Your task to perform on an android device: Go to privacy settings Image 0: 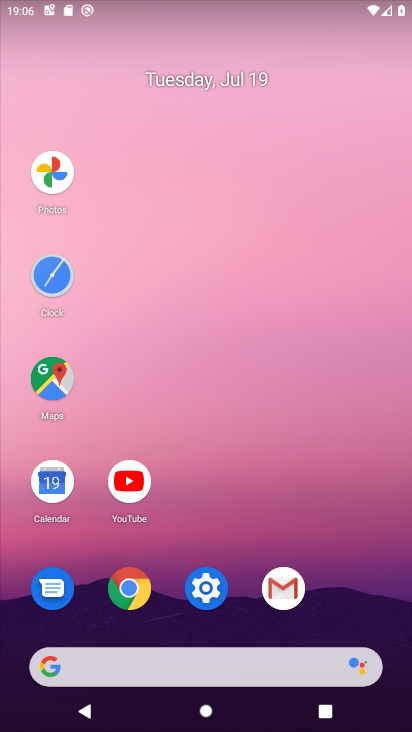
Step 0: click (204, 588)
Your task to perform on an android device: Go to privacy settings Image 1: 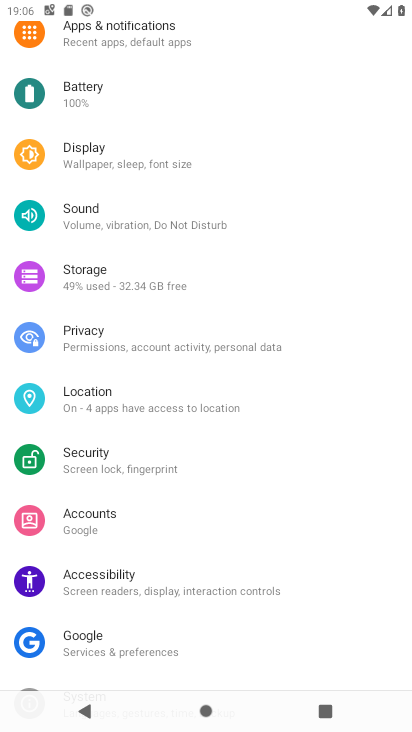
Step 1: click (88, 333)
Your task to perform on an android device: Go to privacy settings Image 2: 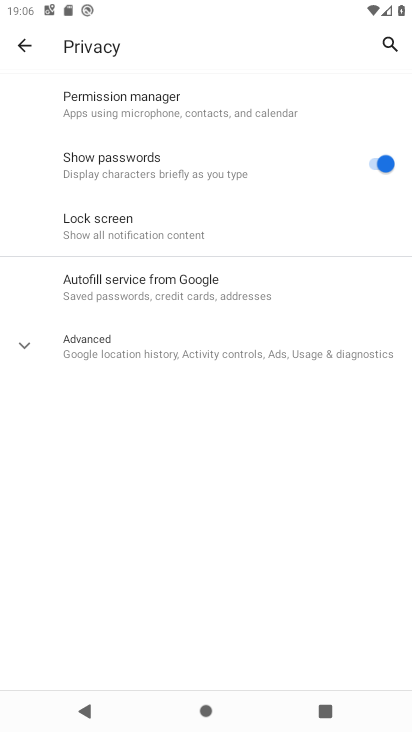
Step 2: task complete